Your task to perform on an android device: see creations saved in the google photos Image 0: 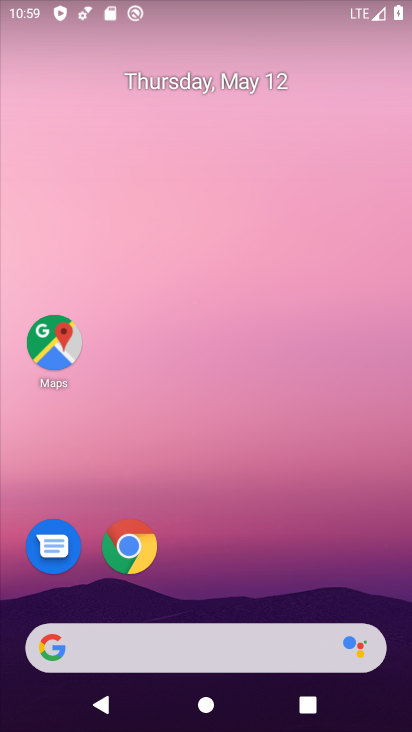
Step 0: drag from (229, 723) to (229, 221)
Your task to perform on an android device: see creations saved in the google photos Image 1: 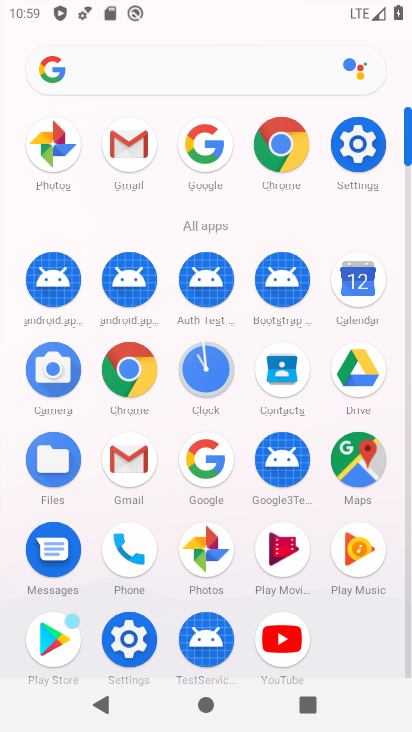
Step 1: click (208, 547)
Your task to perform on an android device: see creations saved in the google photos Image 2: 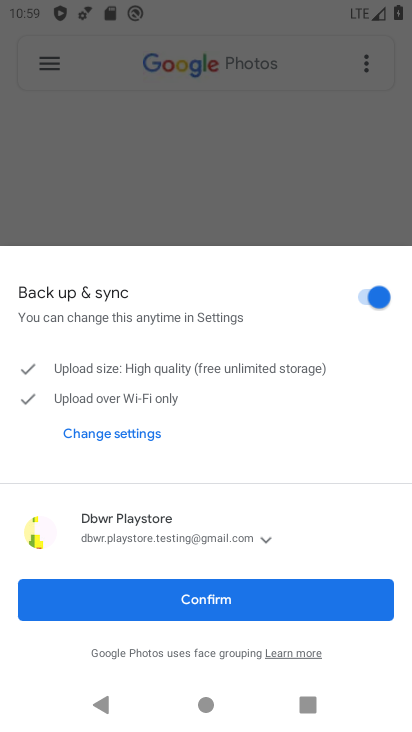
Step 2: click (223, 594)
Your task to perform on an android device: see creations saved in the google photos Image 3: 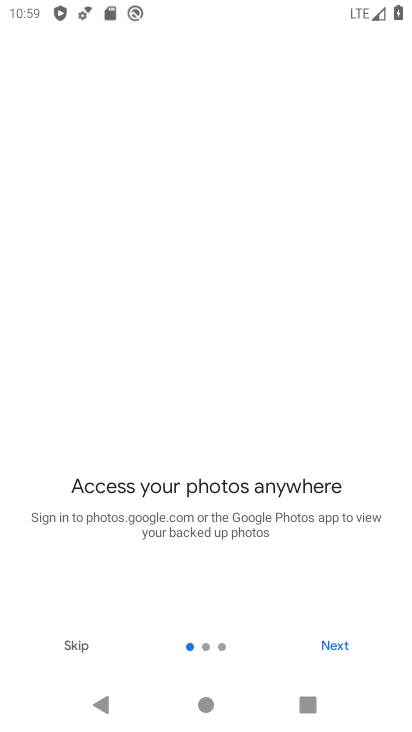
Step 3: click (337, 639)
Your task to perform on an android device: see creations saved in the google photos Image 4: 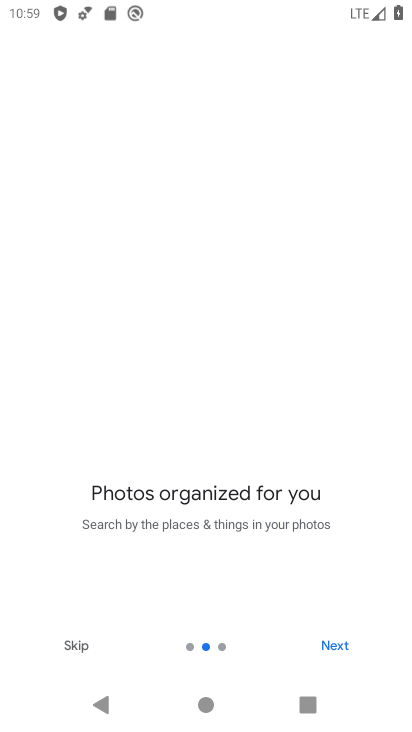
Step 4: click (337, 639)
Your task to perform on an android device: see creations saved in the google photos Image 5: 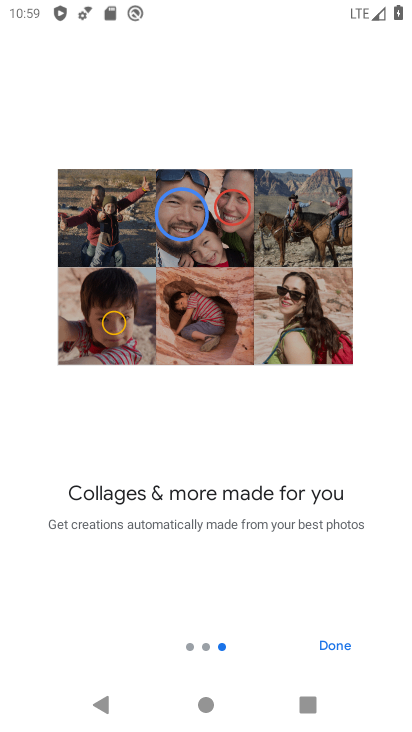
Step 5: click (337, 639)
Your task to perform on an android device: see creations saved in the google photos Image 6: 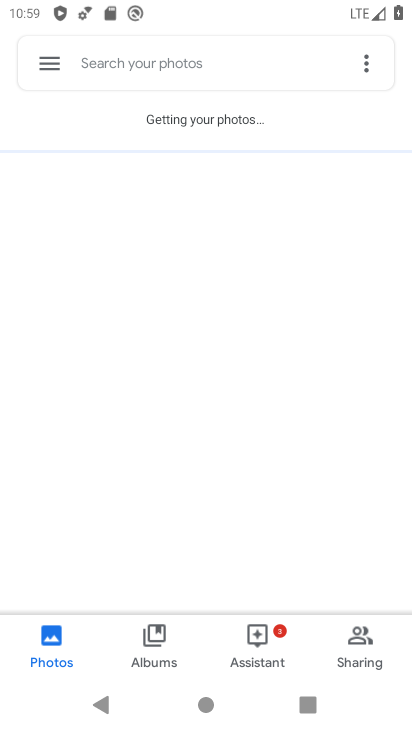
Step 6: click (204, 58)
Your task to perform on an android device: see creations saved in the google photos Image 7: 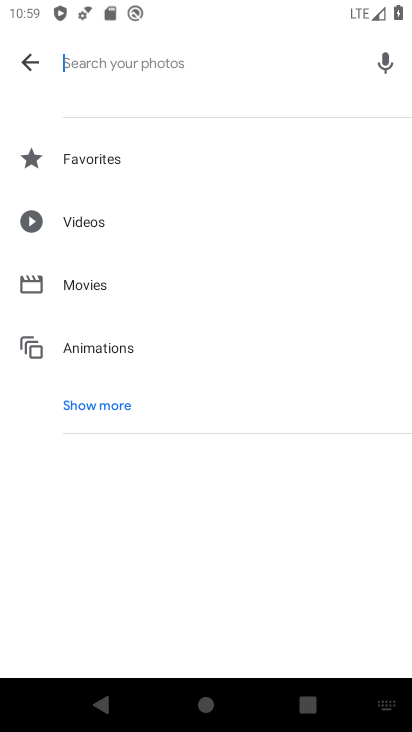
Step 7: click (78, 403)
Your task to perform on an android device: see creations saved in the google photos Image 8: 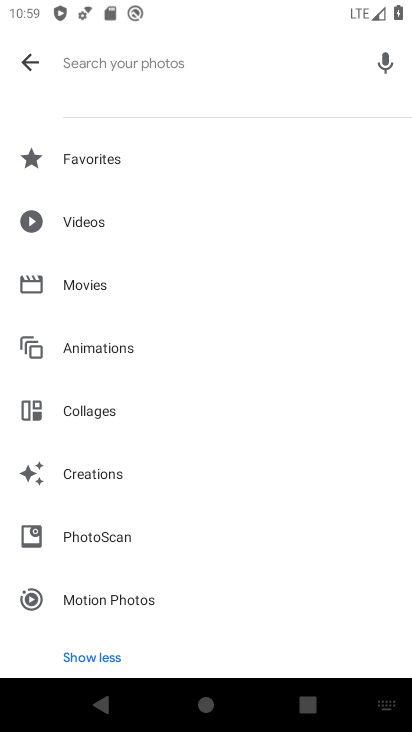
Step 8: click (120, 471)
Your task to perform on an android device: see creations saved in the google photos Image 9: 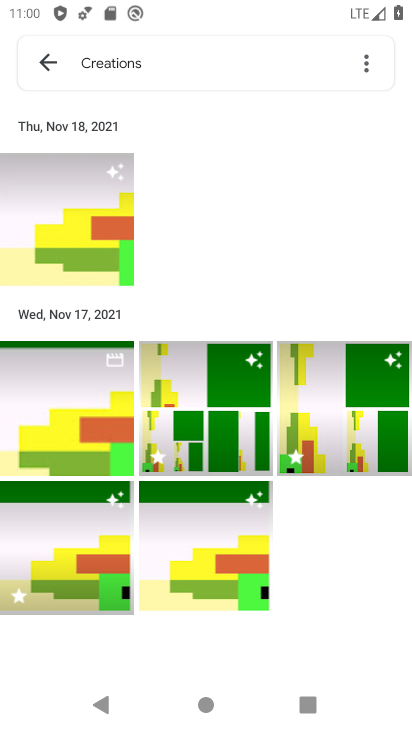
Step 9: task complete